Your task to perform on an android device: When is my next appointment? Image 0: 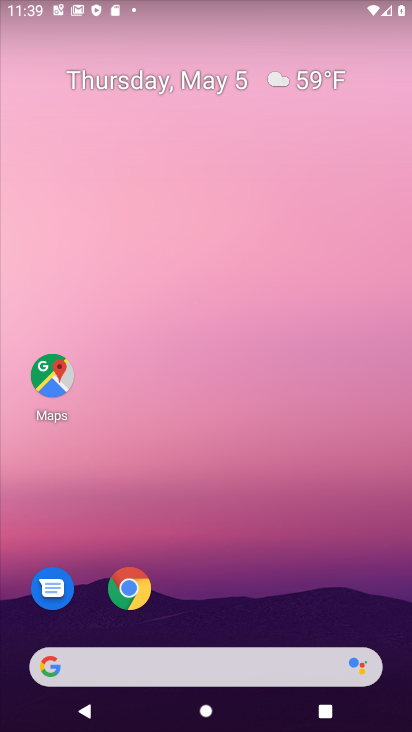
Step 0: drag from (134, 671) to (306, 79)
Your task to perform on an android device: When is my next appointment? Image 1: 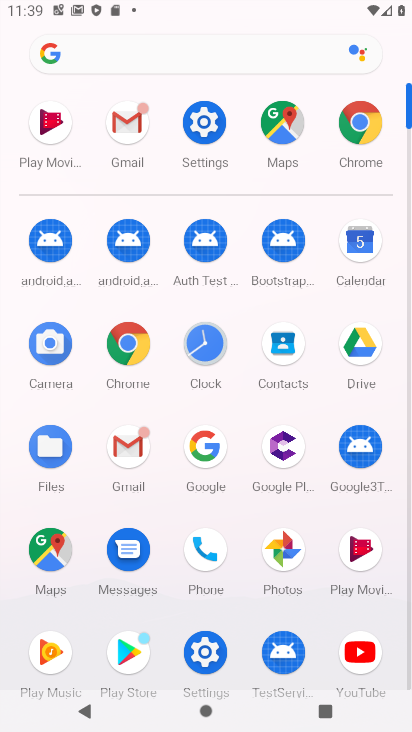
Step 1: click (366, 247)
Your task to perform on an android device: When is my next appointment? Image 2: 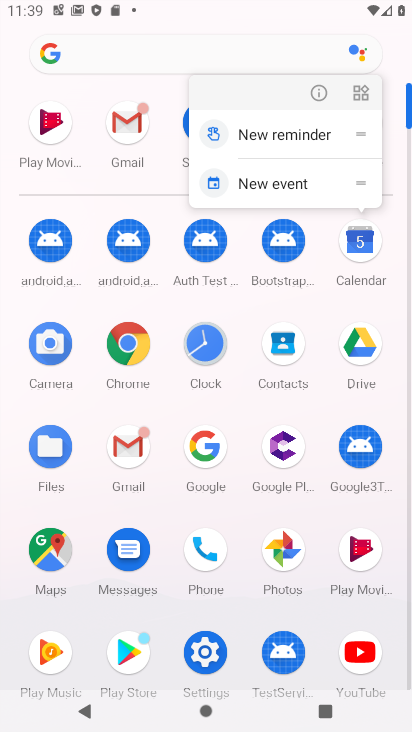
Step 2: click (359, 248)
Your task to perform on an android device: When is my next appointment? Image 3: 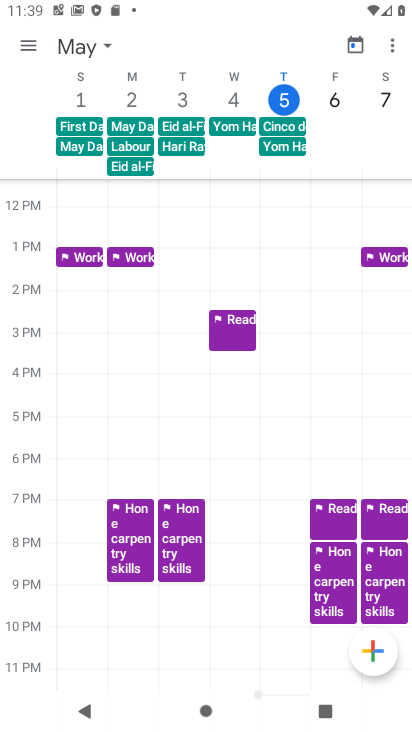
Step 3: click (32, 43)
Your task to perform on an android device: When is my next appointment? Image 4: 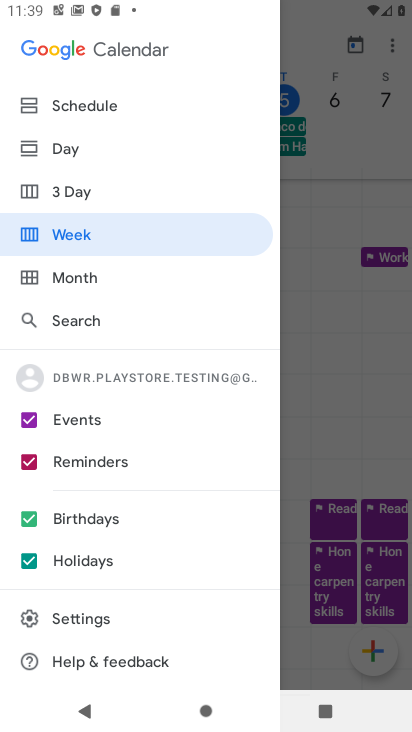
Step 4: click (91, 105)
Your task to perform on an android device: When is my next appointment? Image 5: 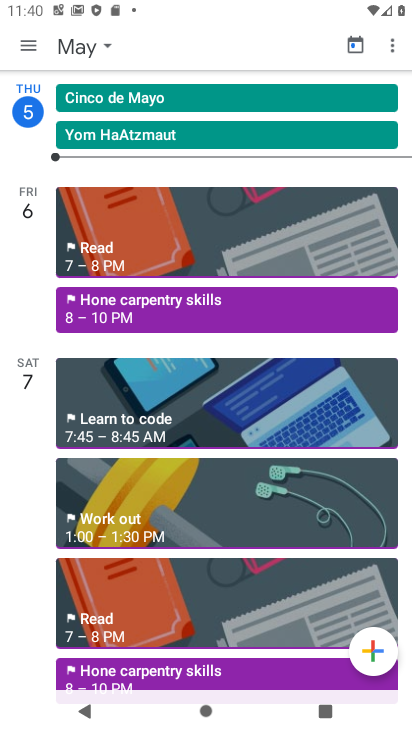
Step 5: click (179, 310)
Your task to perform on an android device: When is my next appointment? Image 6: 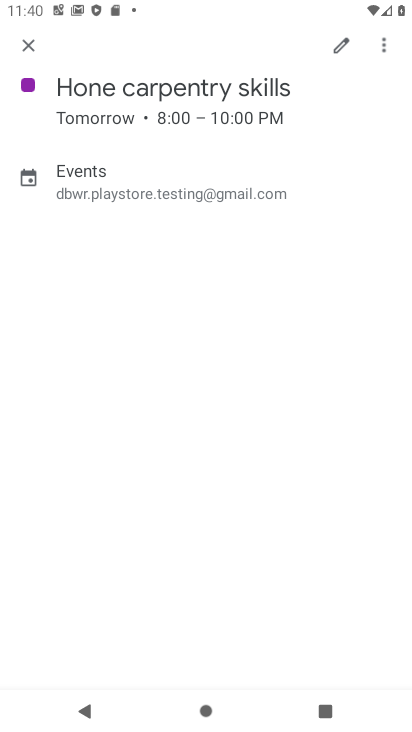
Step 6: task complete